Your task to perform on an android device: open chrome privacy settings Image 0: 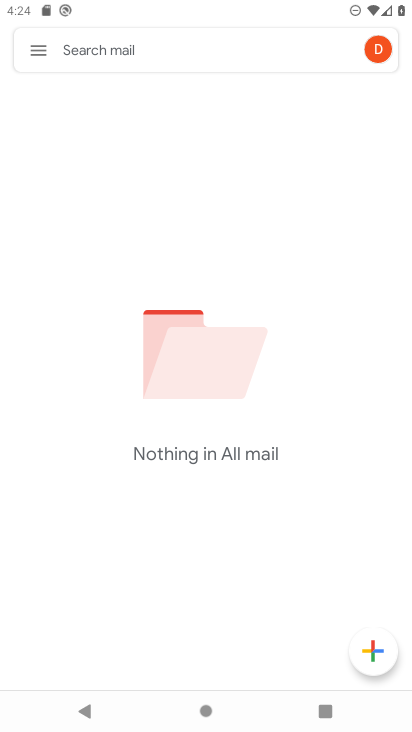
Step 0: press home button
Your task to perform on an android device: open chrome privacy settings Image 1: 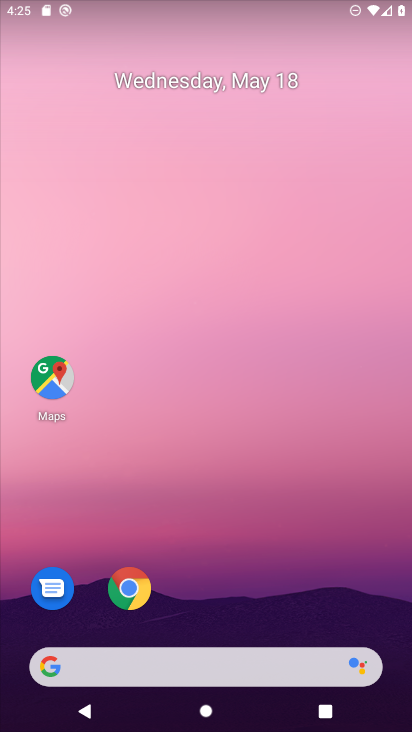
Step 1: click (133, 600)
Your task to perform on an android device: open chrome privacy settings Image 2: 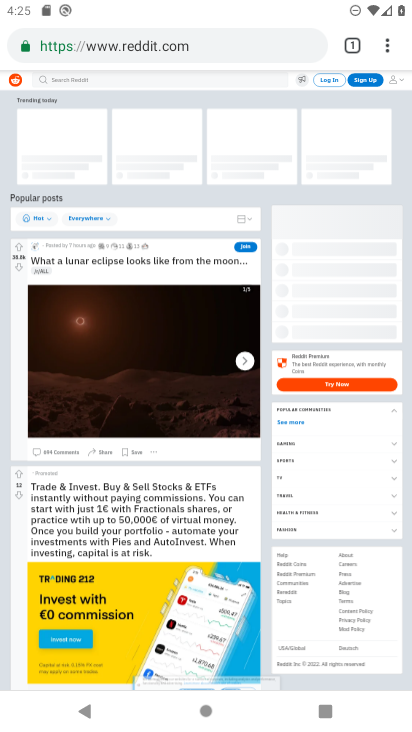
Step 2: click (399, 40)
Your task to perform on an android device: open chrome privacy settings Image 3: 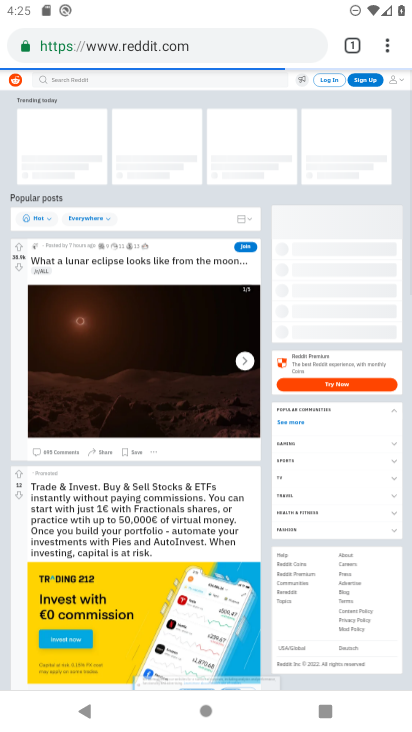
Step 3: click (387, 42)
Your task to perform on an android device: open chrome privacy settings Image 4: 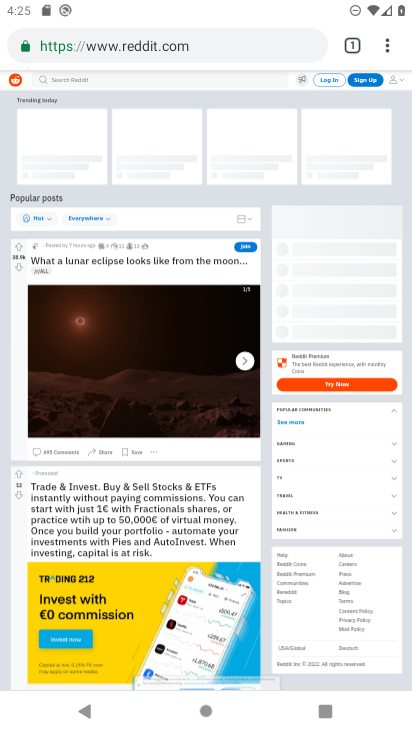
Step 4: click (382, 51)
Your task to perform on an android device: open chrome privacy settings Image 5: 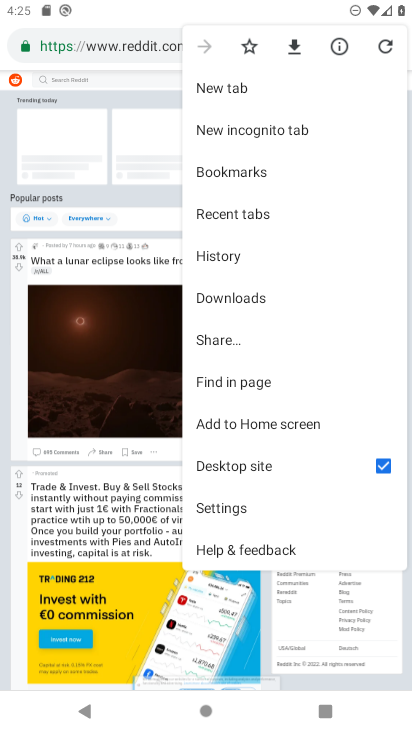
Step 5: click (243, 511)
Your task to perform on an android device: open chrome privacy settings Image 6: 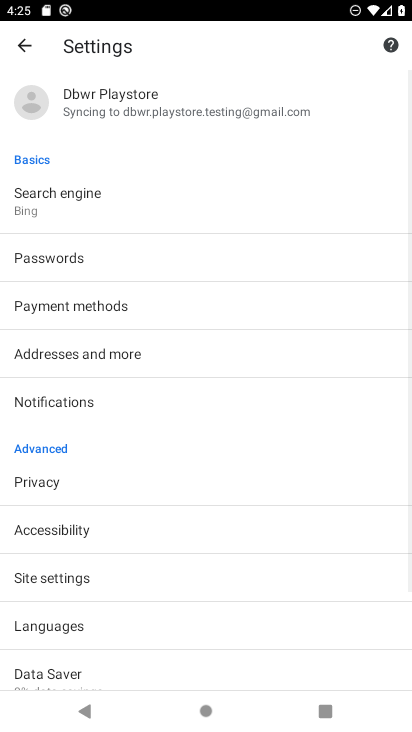
Step 6: click (86, 486)
Your task to perform on an android device: open chrome privacy settings Image 7: 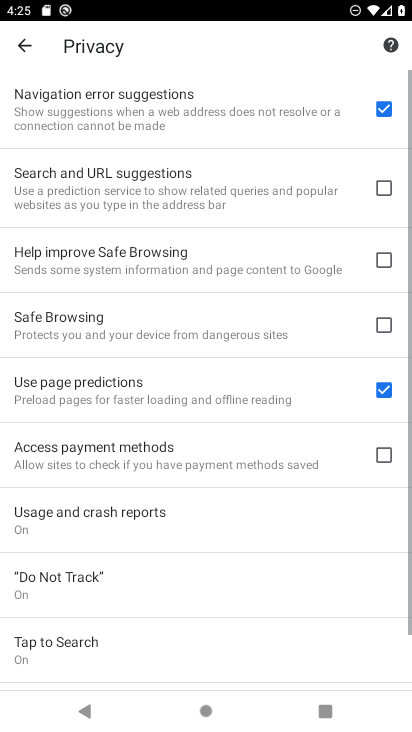
Step 7: task complete